Your task to perform on an android device: Open eBay Image 0: 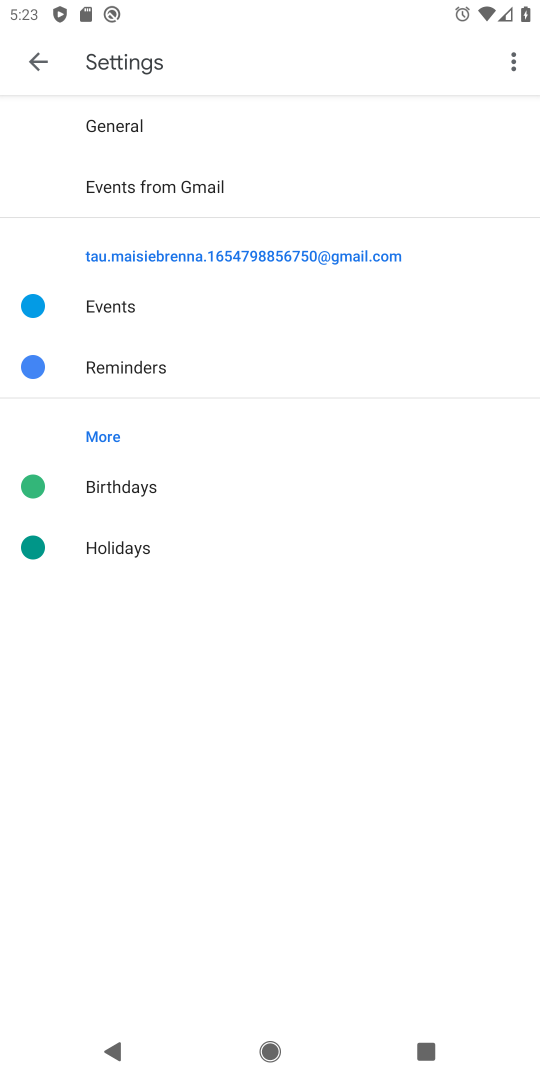
Step 0: press home button
Your task to perform on an android device: Open eBay Image 1: 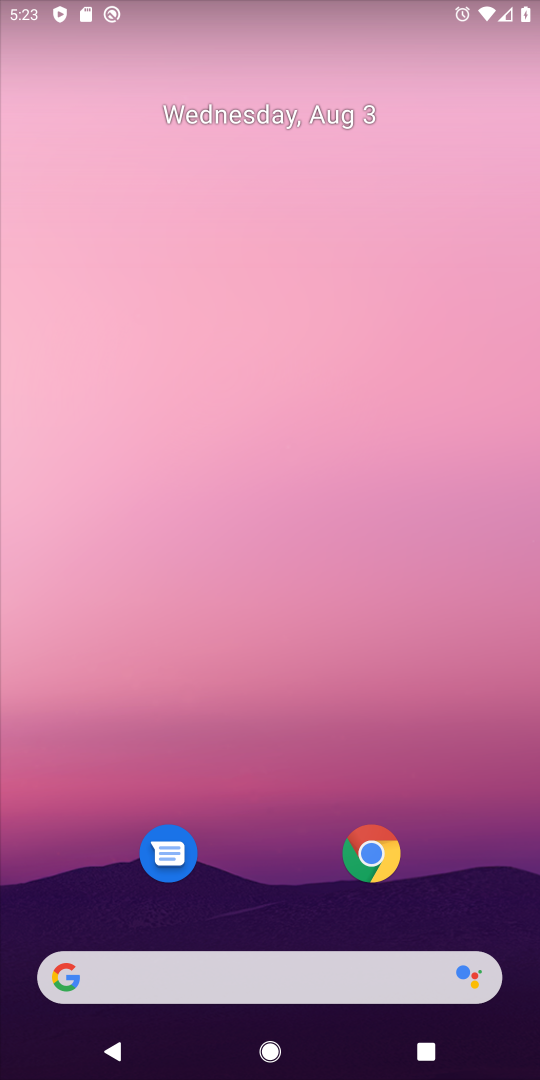
Step 1: click (370, 857)
Your task to perform on an android device: Open eBay Image 2: 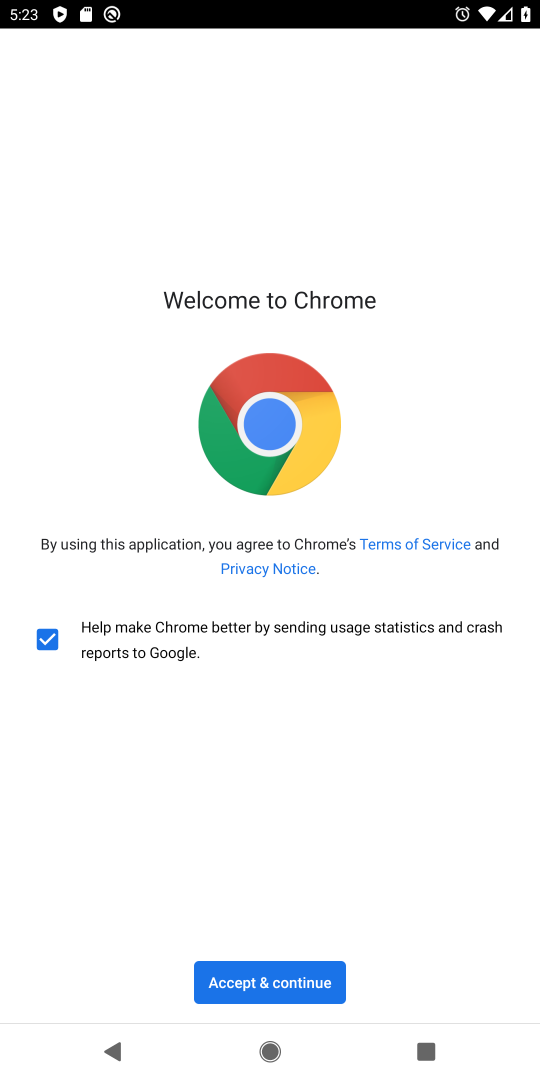
Step 2: click (273, 978)
Your task to perform on an android device: Open eBay Image 3: 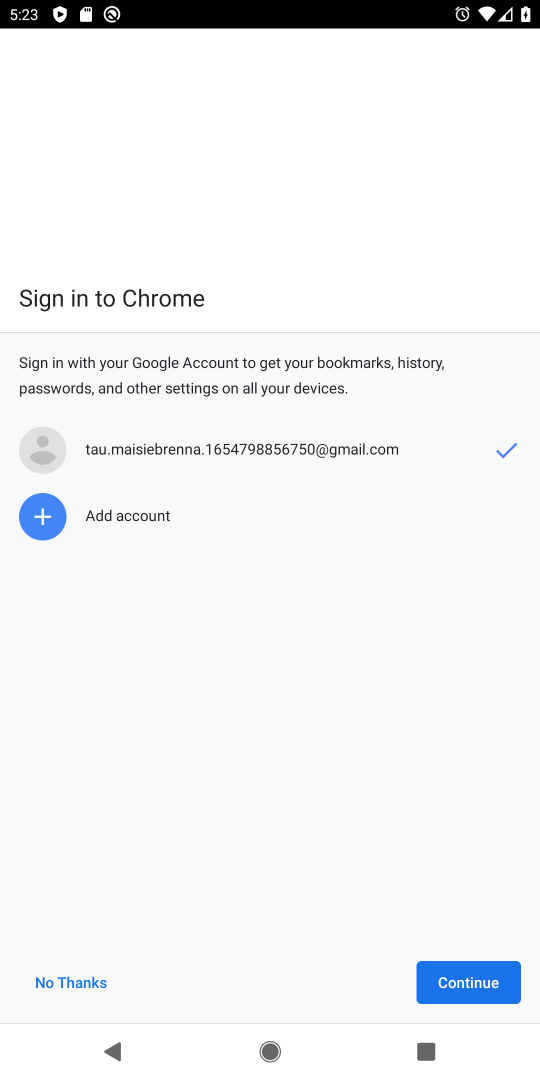
Step 3: click (462, 976)
Your task to perform on an android device: Open eBay Image 4: 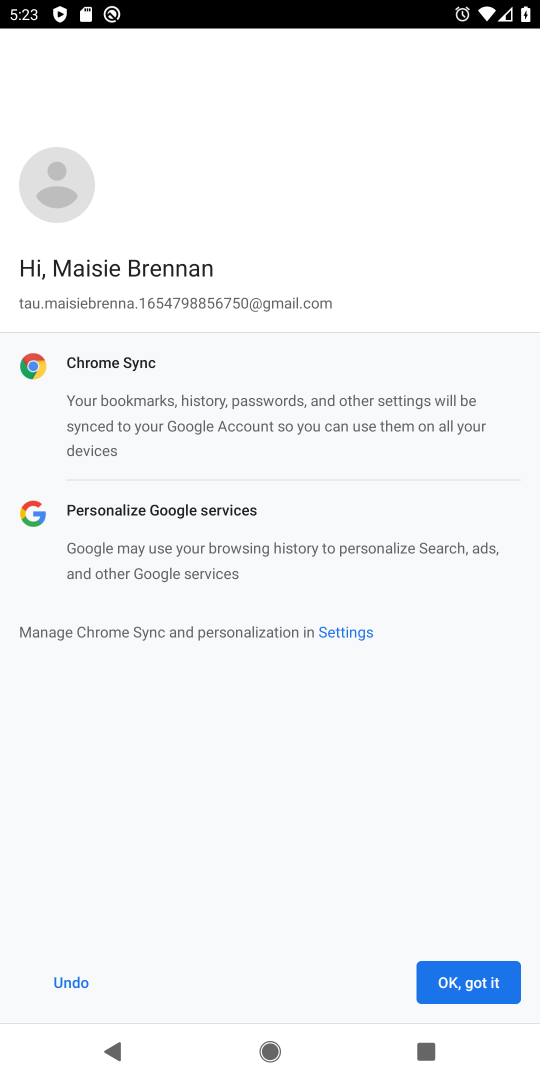
Step 4: click (462, 976)
Your task to perform on an android device: Open eBay Image 5: 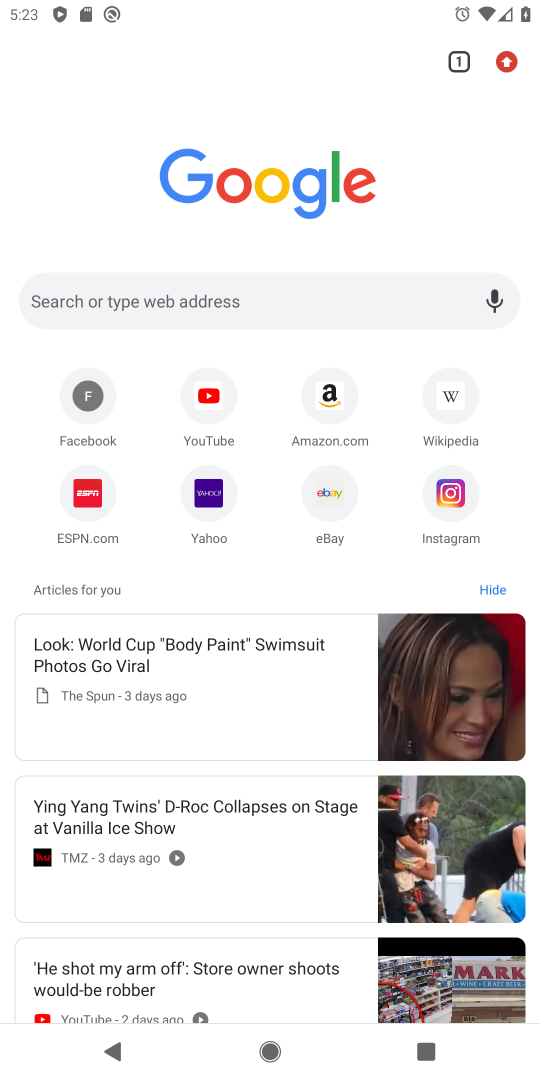
Step 5: click (337, 488)
Your task to perform on an android device: Open eBay Image 6: 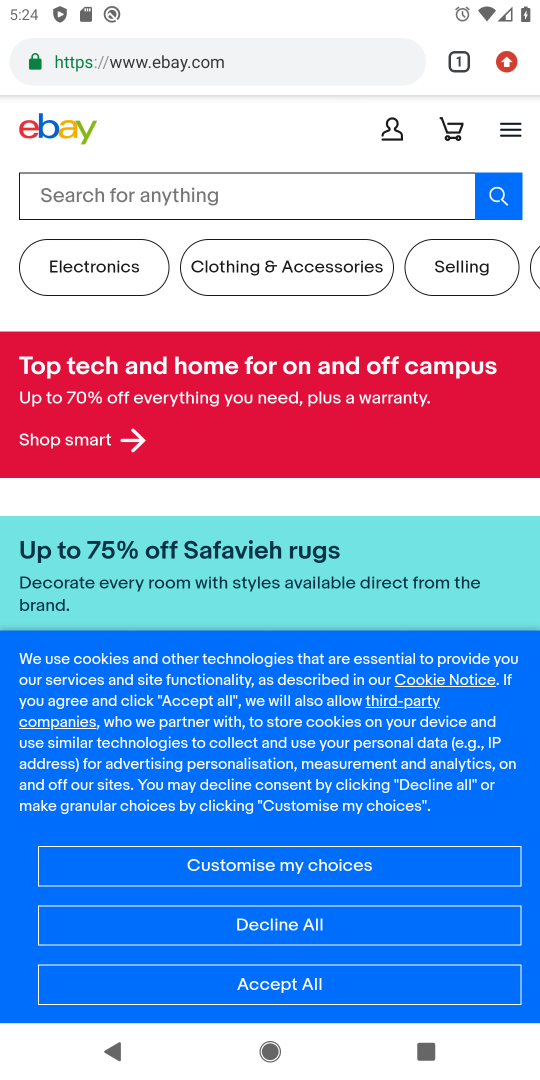
Step 6: task complete